Your task to perform on an android device: toggle data saver in the chrome app Image 0: 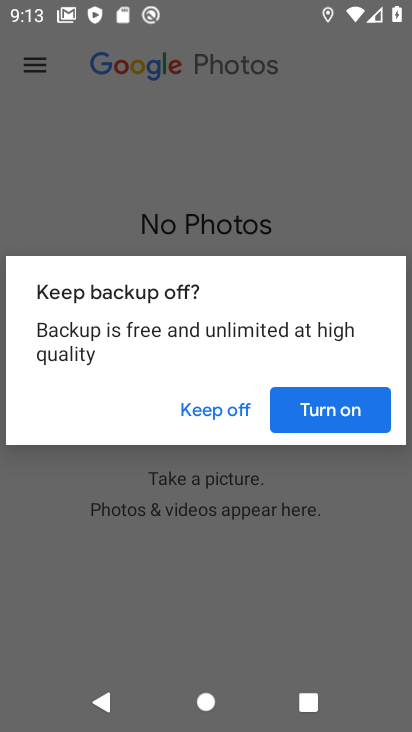
Step 0: press home button
Your task to perform on an android device: toggle data saver in the chrome app Image 1: 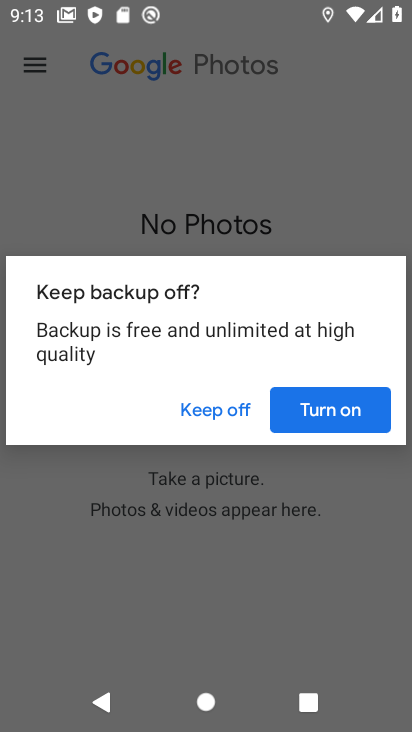
Step 1: press home button
Your task to perform on an android device: toggle data saver in the chrome app Image 2: 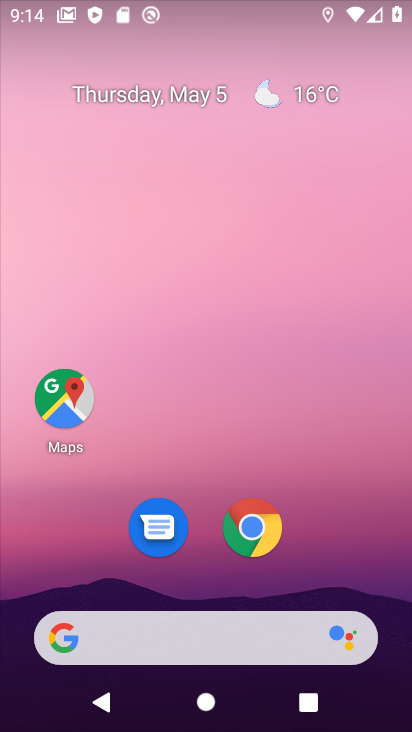
Step 2: press home button
Your task to perform on an android device: toggle data saver in the chrome app Image 3: 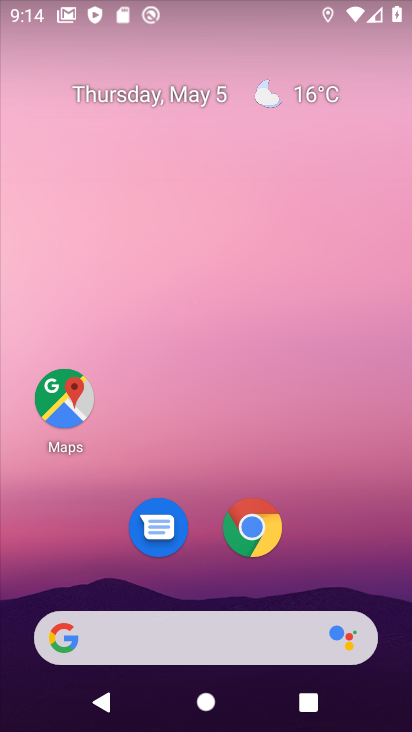
Step 3: click (243, 539)
Your task to perform on an android device: toggle data saver in the chrome app Image 4: 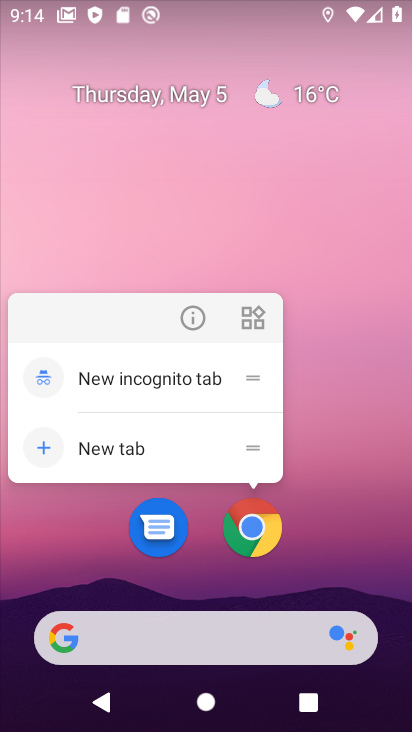
Step 4: click (241, 535)
Your task to perform on an android device: toggle data saver in the chrome app Image 5: 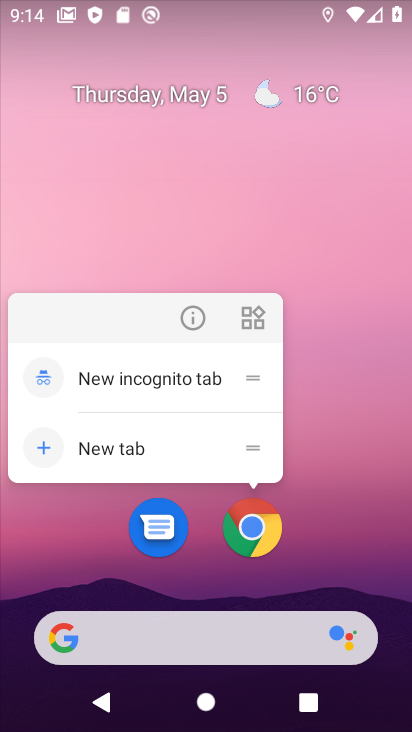
Step 5: click (257, 531)
Your task to perform on an android device: toggle data saver in the chrome app Image 6: 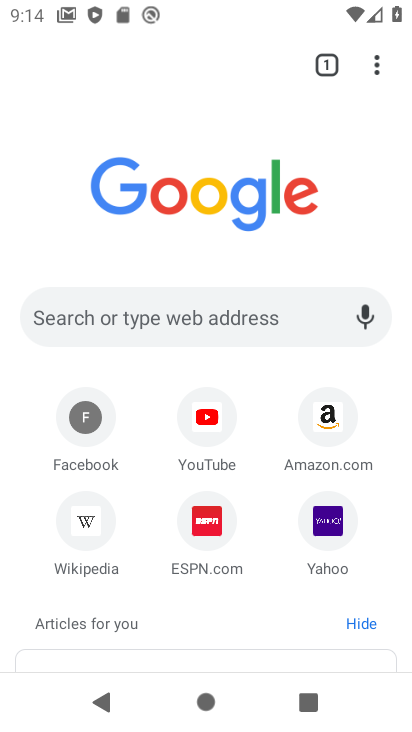
Step 6: drag from (375, 75) to (224, 536)
Your task to perform on an android device: toggle data saver in the chrome app Image 7: 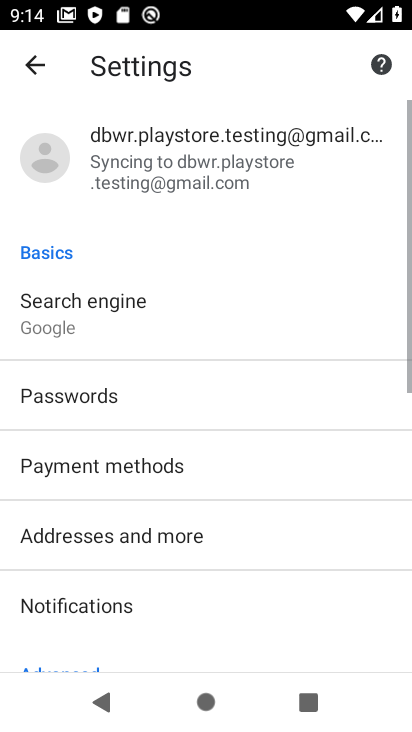
Step 7: drag from (175, 600) to (270, 168)
Your task to perform on an android device: toggle data saver in the chrome app Image 8: 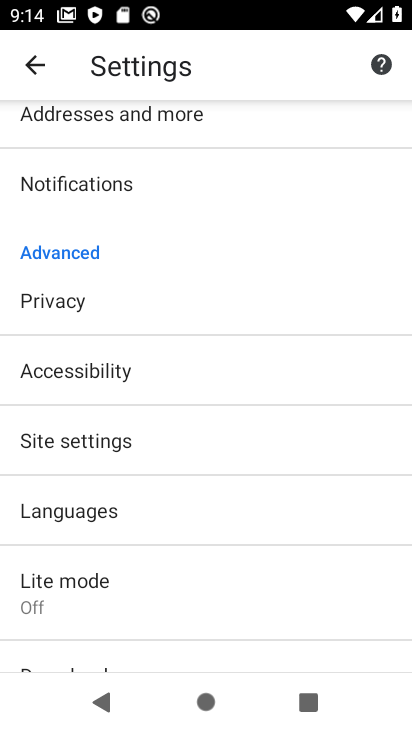
Step 8: click (135, 591)
Your task to perform on an android device: toggle data saver in the chrome app Image 9: 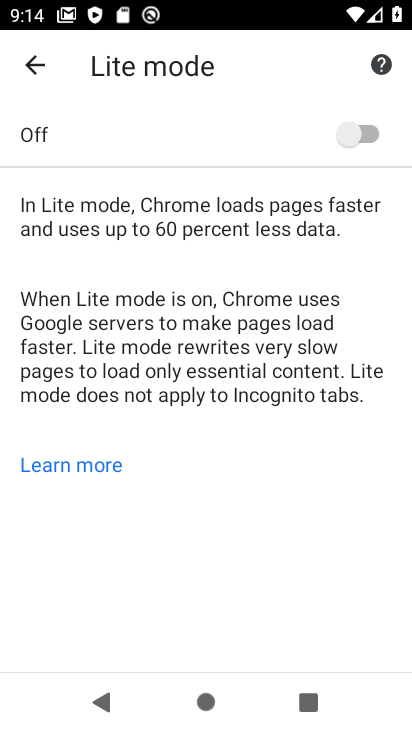
Step 9: click (385, 129)
Your task to perform on an android device: toggle data saver in the chrome app Image 10: 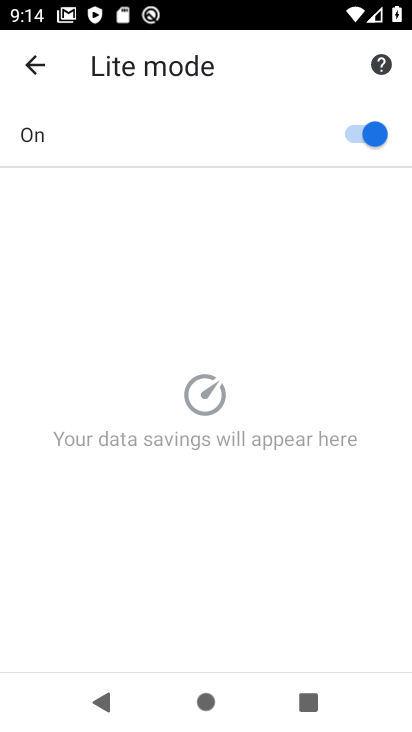
Step 10: task complete